Your task to perform on an android device: Open Youtube and go to the subscriptions tab Image 0: 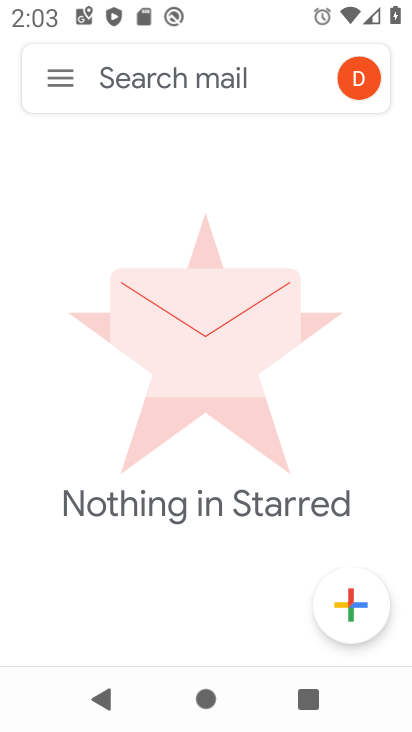
Step 0: press home button
Your task to perform on an android device: Open Youtube and go to the subscriptions tab Image 1: 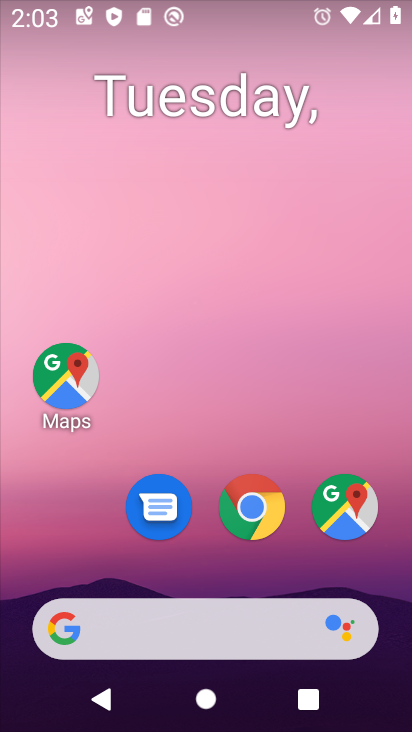
Step 1: drag from (191, 564) to (242, 271)
Your task to perform on an android device: Open Youtube and go to the subscriptions tab Image 2: 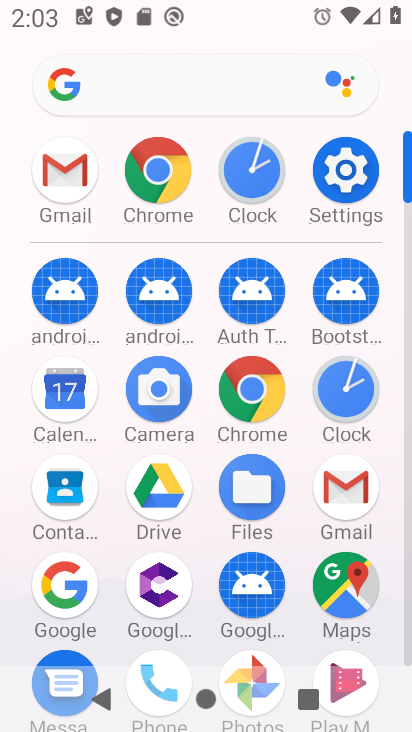
Step 2: drag from (256, 651) to (303, 304)
Your task to perform on an android device: Open Youtube and go to the subscriptions tab Image 3: 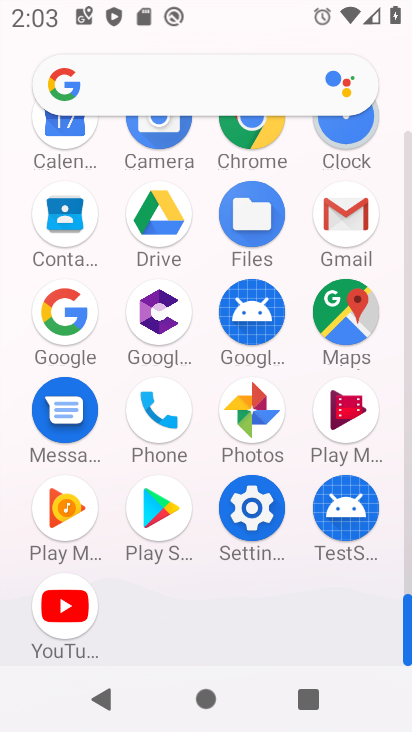
Step 3: click (337, 408)
Your task to perform on an android device: Open Youtube and go to the subscriptions tab Image 4: 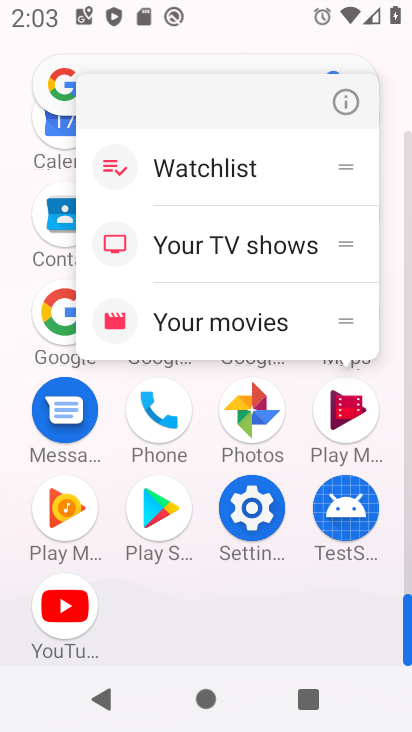
Step 4: click (65, 589)
Your task to perform on an android device: Open Youtube and go to the subscriptions tab Image 5: 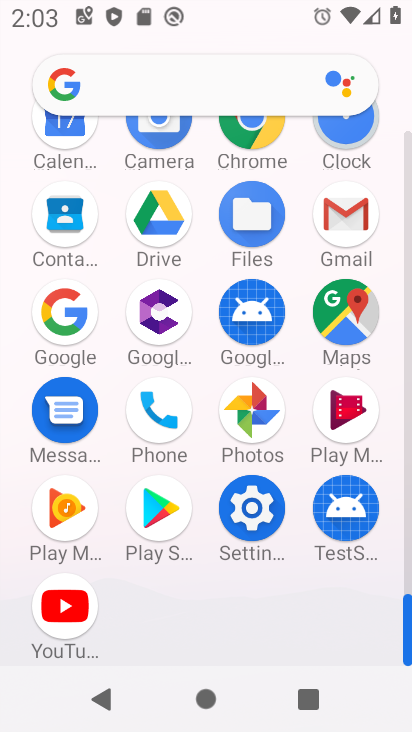
Step 5: click (61, 602)
Your task to perform on an android device: Open Youtube and go to the subscriptions tab Image 6: 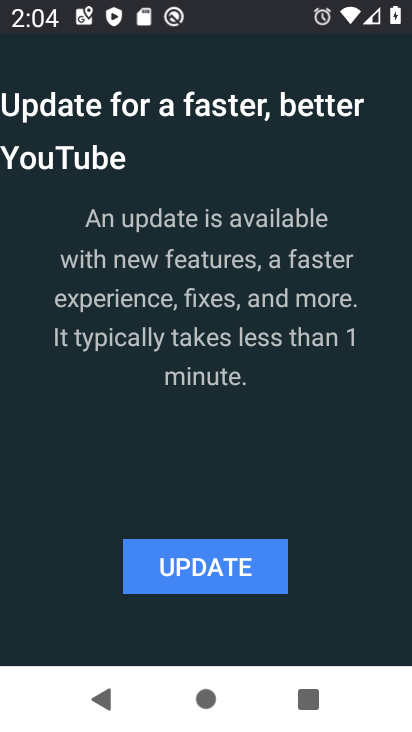
Step 6: task complete